Your task to perform on an android device: clear all cookies in the chrome app Image 0: 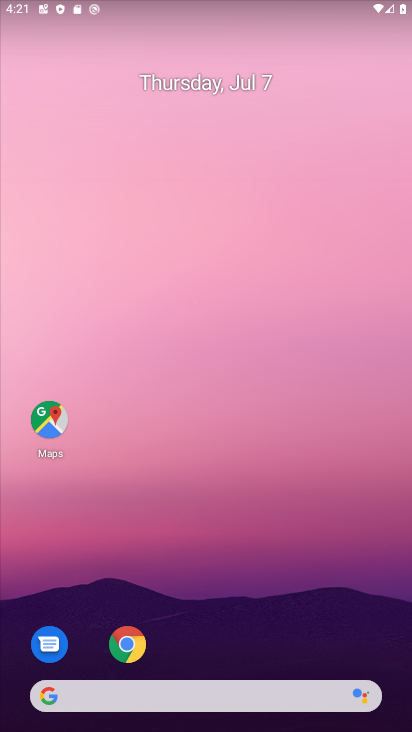
Step 0: click (130, 641)
Your task to perform on an android device: clear all cookies in the chrome app Image 1: 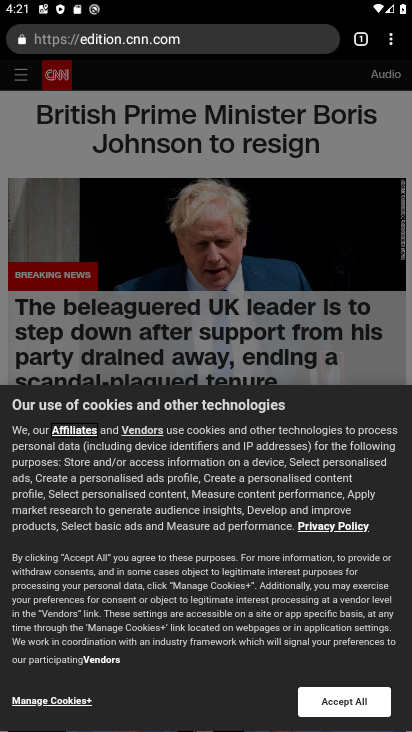
Step 1: click (387, 37)
Your task to perform on an android device: clear all cookies in the chrome app Image 2: 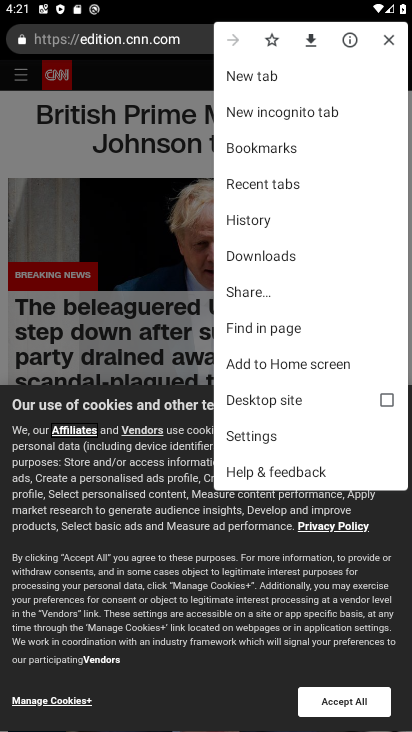
Step 2: click (254, 431)
Your task to perform on an android device: clear all cookies in the chrome app Image 3: 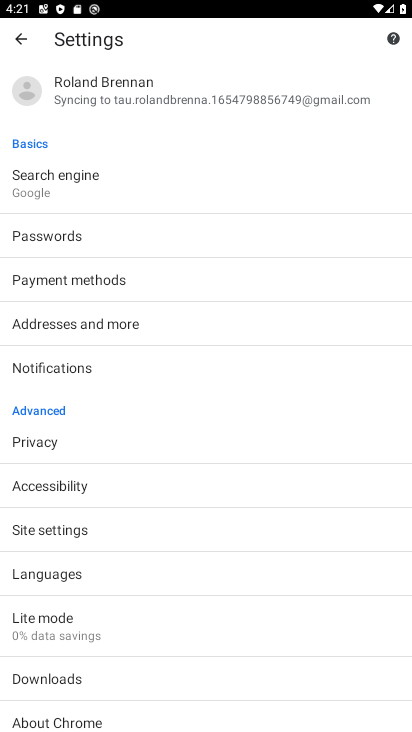
Step 3: click (16, 37)
Your task to perform on an android device: clear all cookies in the chrome app Image 4: 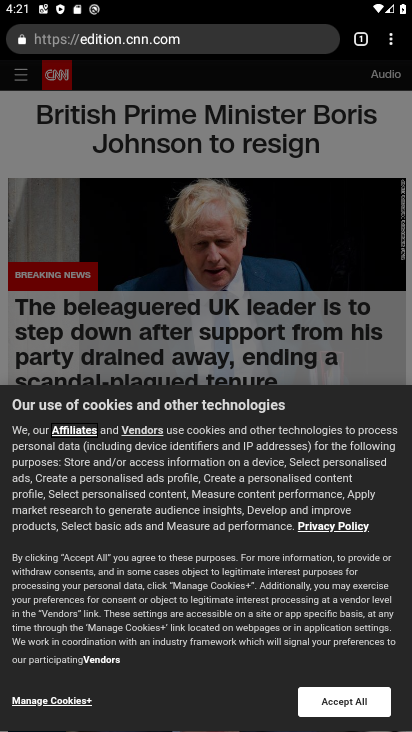
Step 4: click (392, 43)
Your task to perform on an android device: clear all cookies in the chrome app Image 5: 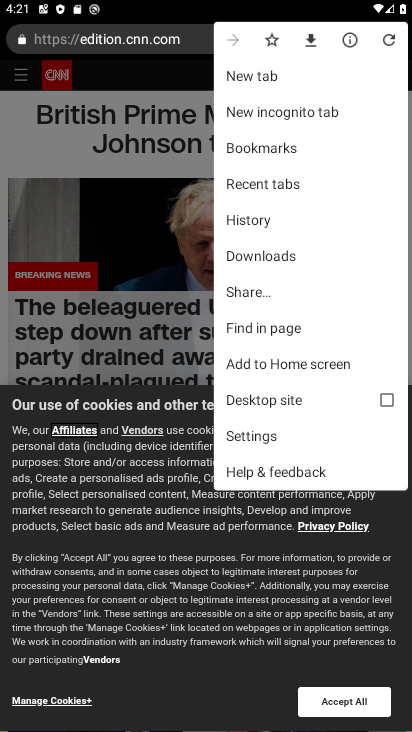
Step 5: click (261, 222)
Your task to perform on an android device: clear all cookies in the chrome app Image 6: 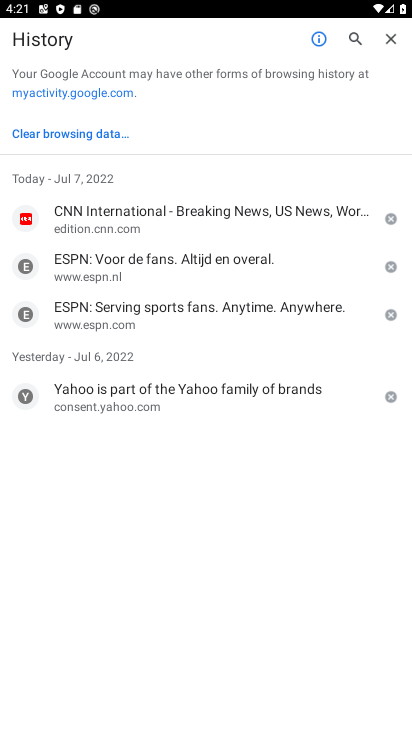
Step 6: click (95, 125)
Your task to perform on an android device: clear all cookies in the chrome app Image 7: 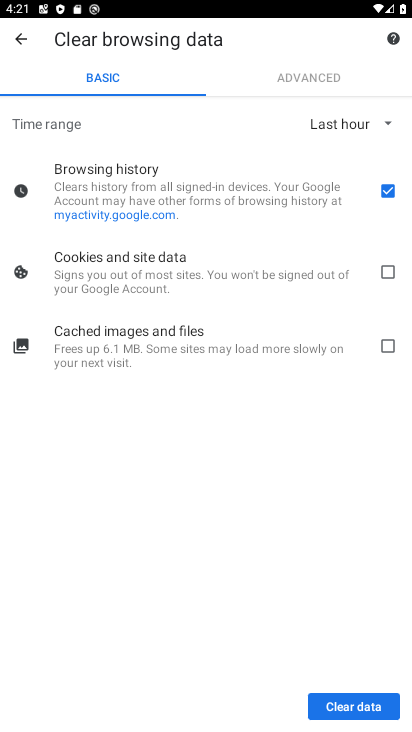
Step 7: click (390, 271)
Your task to perform on an android device: clear all cookies in the chrome app Image 8: 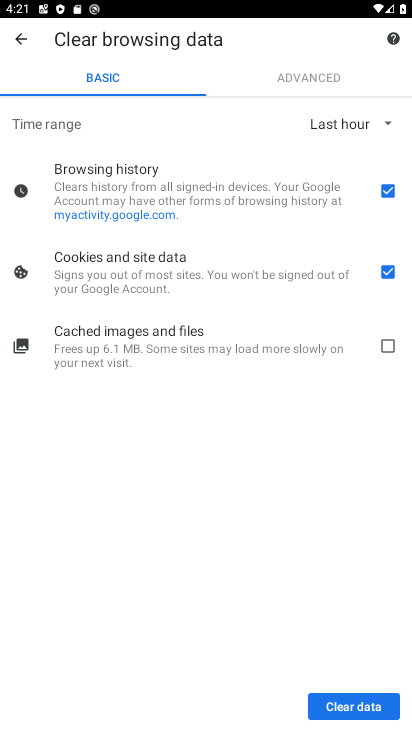
Step 8: click (385, 184)
Your task to perform on an android device: clear all cookies in the chrome app Image 9: 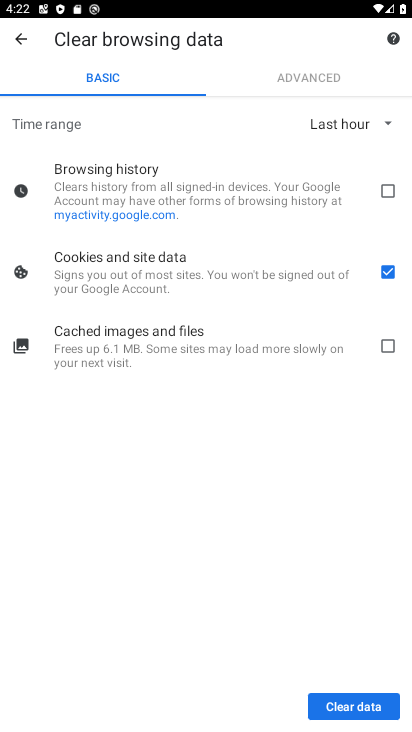
Step 9: click (362, 702)
Your task to perform on an android device: clear all cookies in the chrome app Image 10: 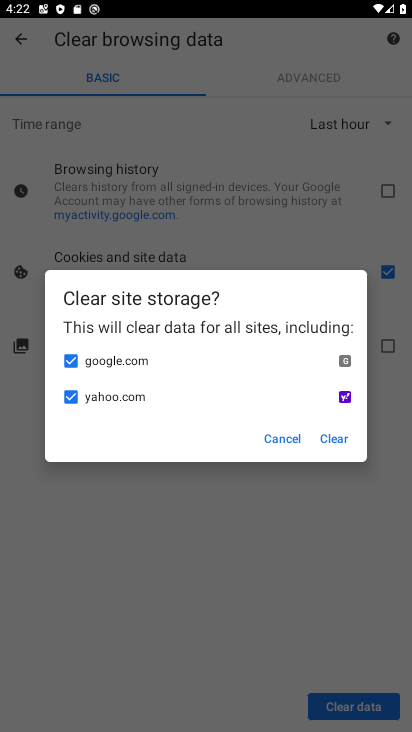
Step 10: click (339, 436)
Your task to perform on an android device: clear all cookies in the chrome app Image 11: 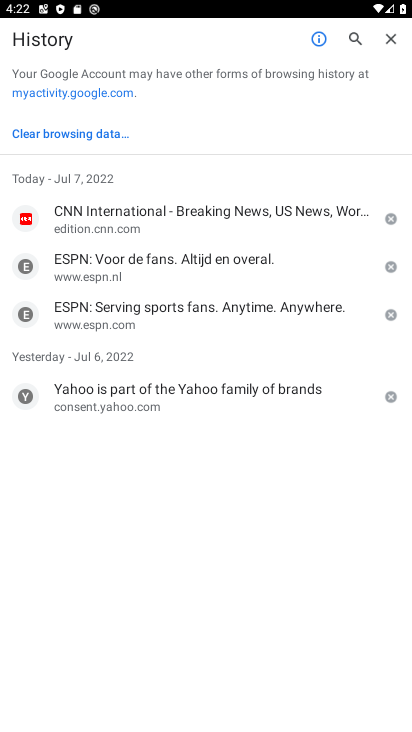
Step 11: task complete